Your task to perform on an android device: clear history in the chrome app Image 0: 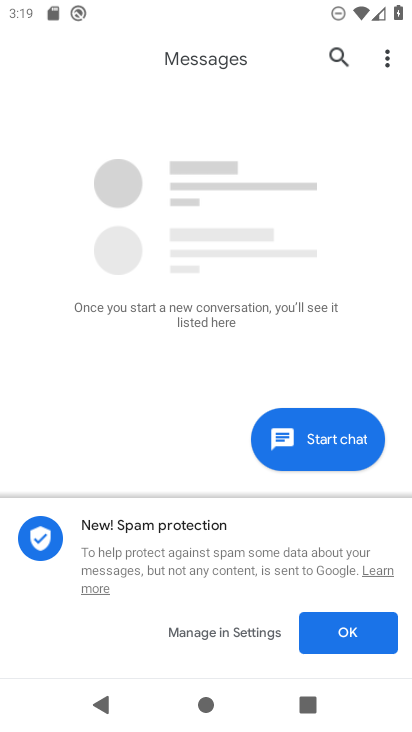
Step 0: press home button
Your task to perform on an android device: clear history in the chrome app Image 1: 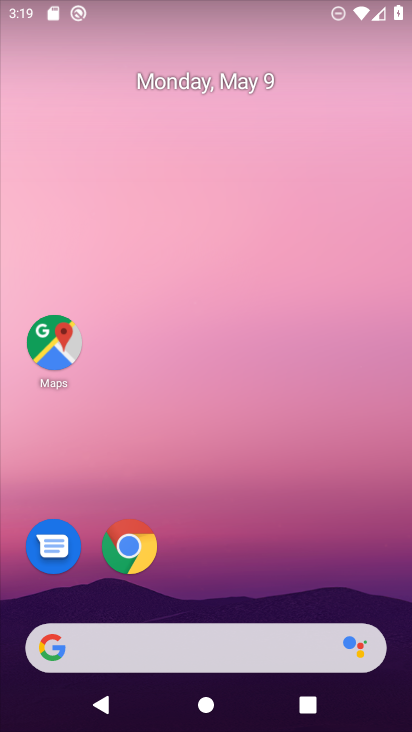
Step 1: click (134, 552)
Your task to perform on an android device: clear history in the chrome app Image 2: 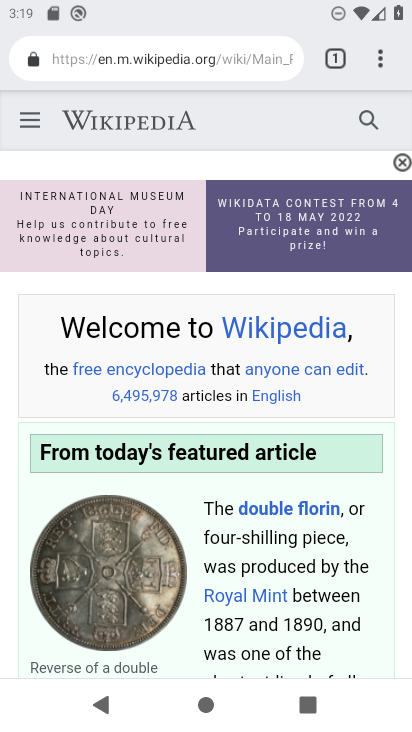
Step 2: click (384, 59)
Your task to perform on an android device: clear history in the chrome app Image 3: 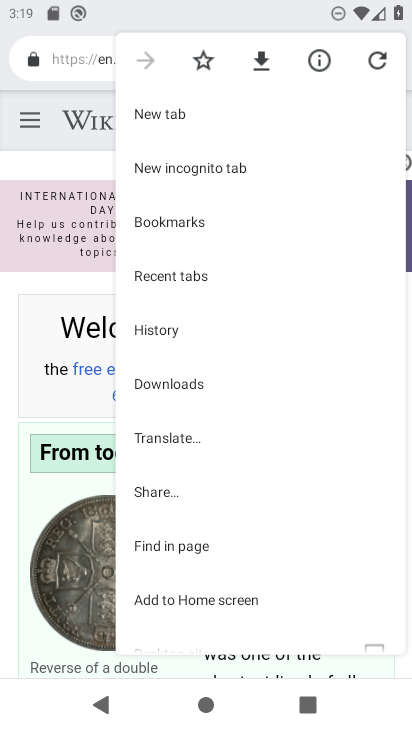
Step 3: click (176, 330)
Your task to perform on an android device: clear history in the chrome app Image 4: 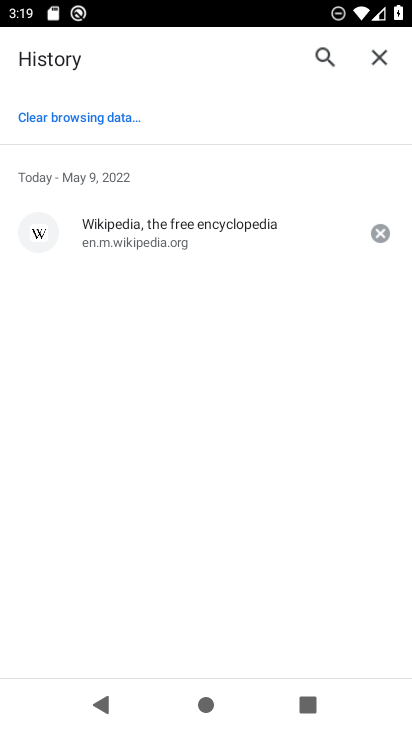
Step 4: click (75, 116)
Your task to perform on an android device: clear history in the chrome app Image 5: 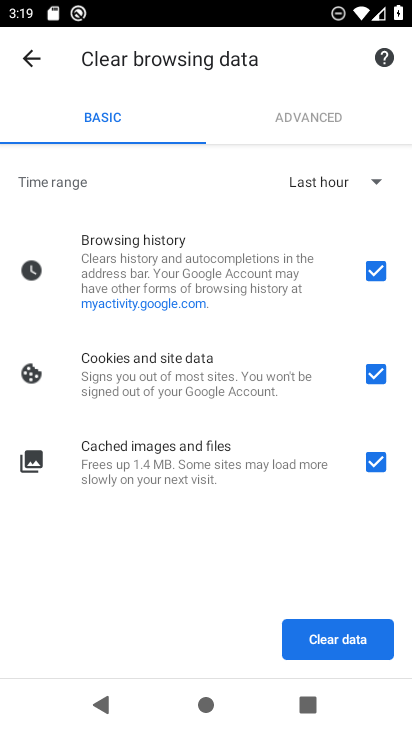
Step 5: click (331, 636)
Your task to perform on an android device: clear history in the chrome app Image 6: 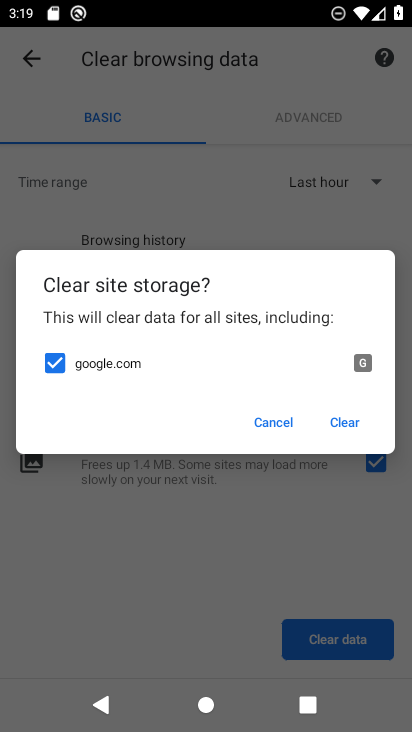
Step 6: click (342, 425)
Your task to perform on an android device: clear history in the chrome app Image 7: 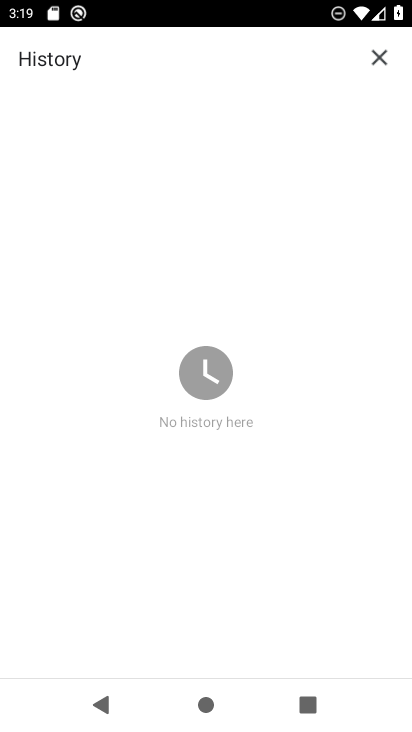
Step 7: task complete